Your task to perform on an android device: check android version Image 0: 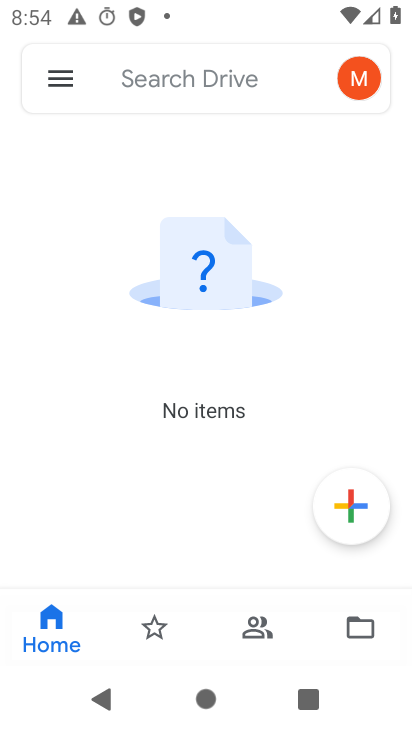
Step 0: press home button
Your task to perform on an android device: check android version Image 1: 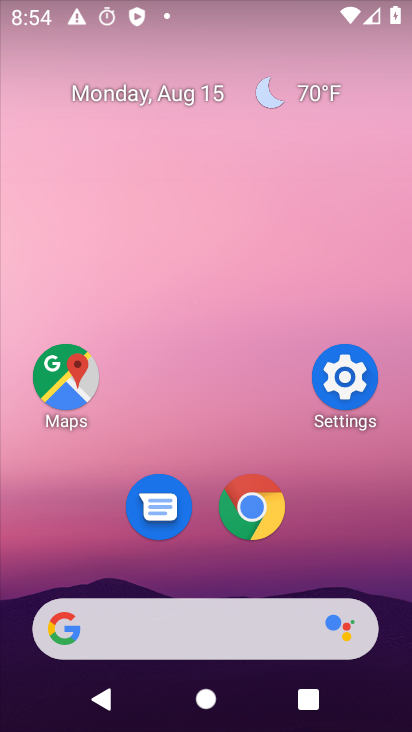
Step 1: click (348, 363)
Your task to perform on an android device: check android version Image 2: 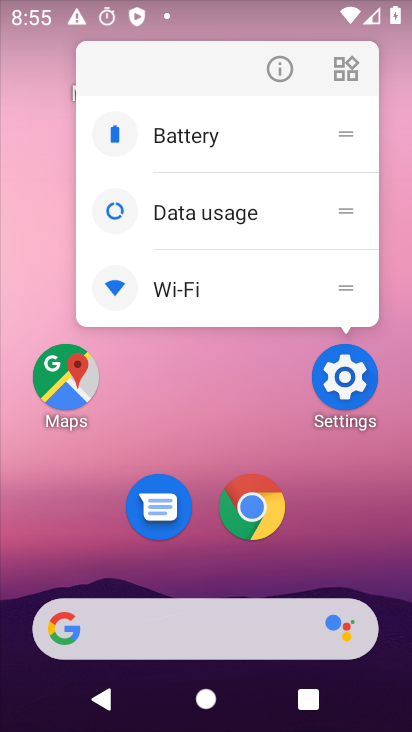
Step 2: click (348, 362)
Your task to perform on an android device: check android version Image 3: 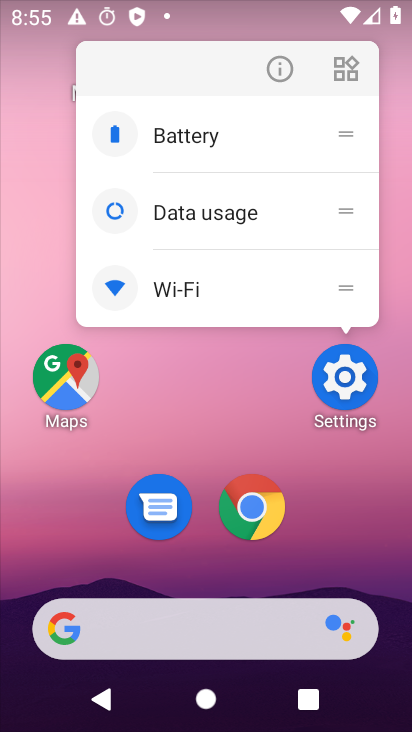
Step 3: click (348, 363)
Your task to perform on an android device: check android version Image 4: 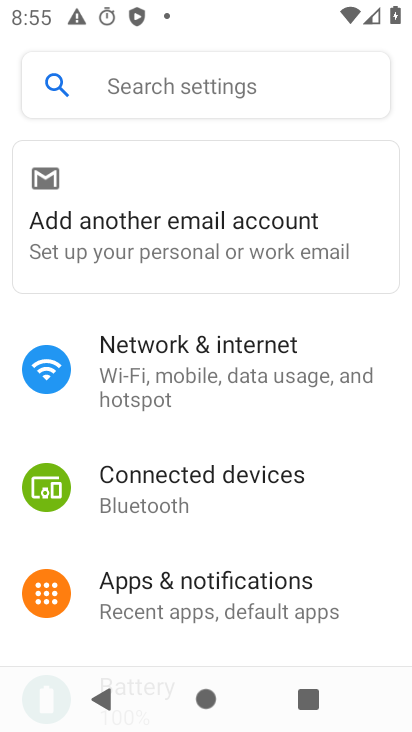
Step 4: drag from (217, 611) to (366, 103)
Your task to perform on an android device: check android version Image 5: 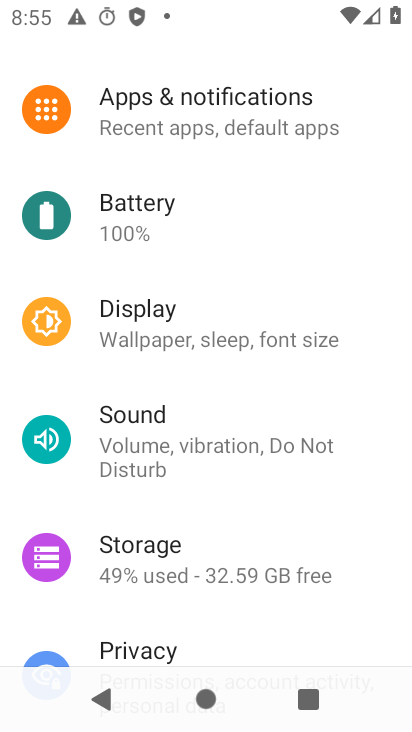
Step 5: drag from (215, 613) to (352, 81)
Your task to perform on an android device: check android version Image 6: 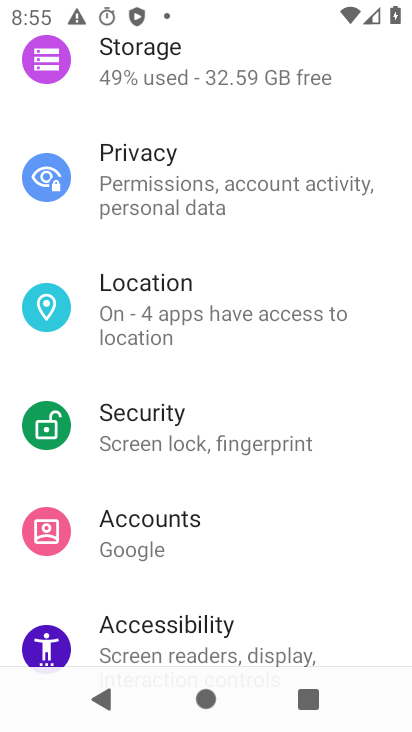
Step 6: drag from (225, 599) to (363, 53)
Your task to perform on an android device: check android version Image 7: 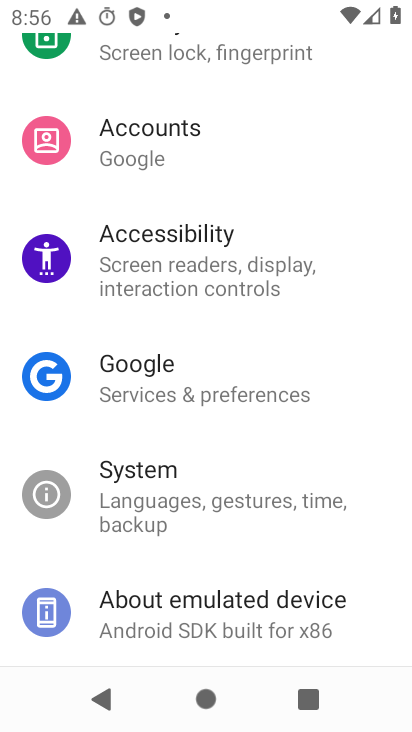
Step 7: click (224, 606)
Your task to perform on an android device: check android version Image 8: 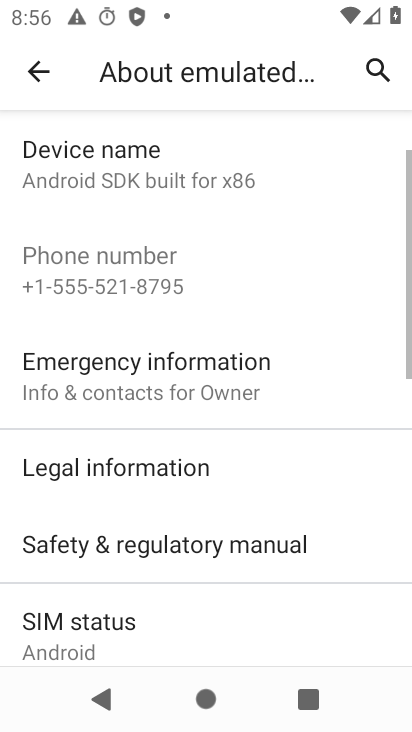
Step 8: drag from (160, 516) to (314, 93)
Your task to perform on an android device: check android version Image 9: 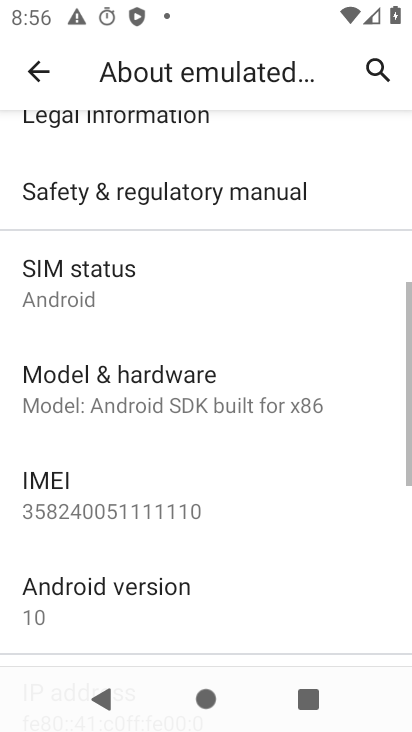
Step 9: drag from (207, 564) to (343, 146)
Your task to perform on an android device: check android version Image 10: 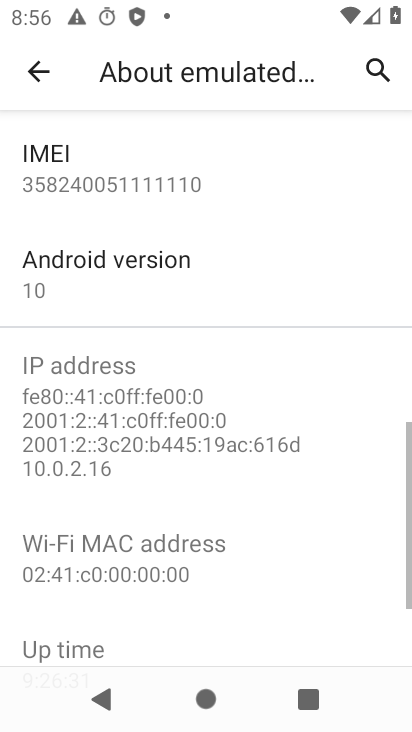
Step 10: click (130, 254)
Your task to perform on an android device: check android version Image 11: 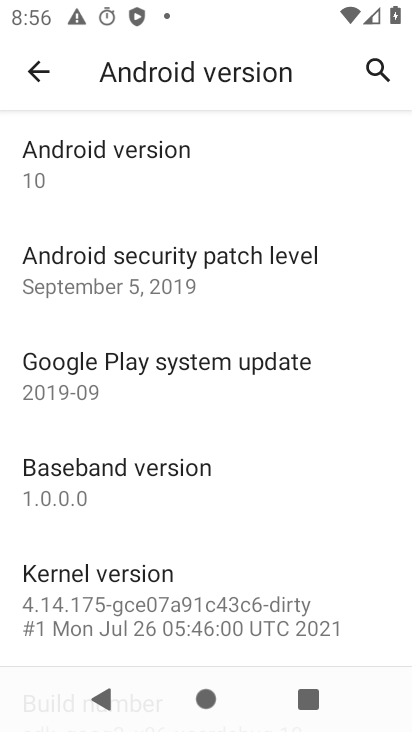
Step 11: task complete